Your task to perform on an android device: Show me popular videos on Youtube Image 0: 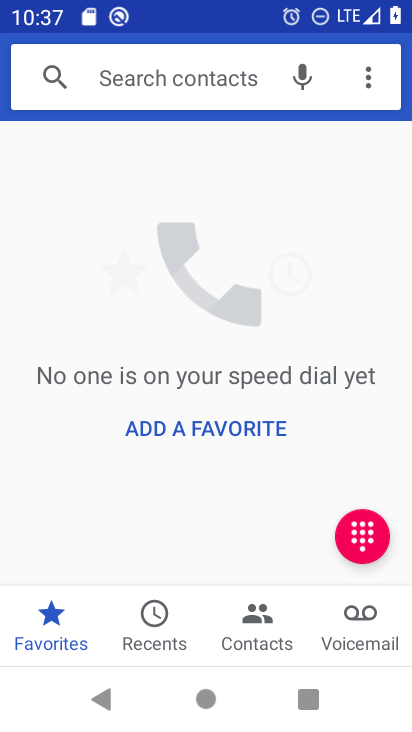
Step 0: press home button
Your task to perform on an android device: Show me popular videos on Youtube Image 1: 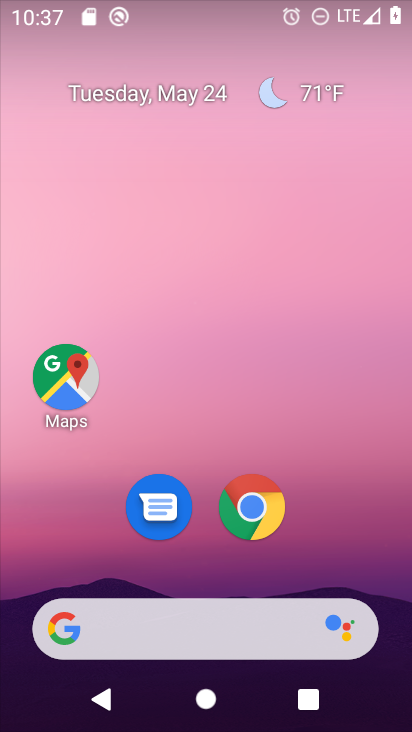
Step 1: drag from (246, 723) to (229, 12)
Your task to perform on an android device: Show me popular videos on Youtube Image 2: 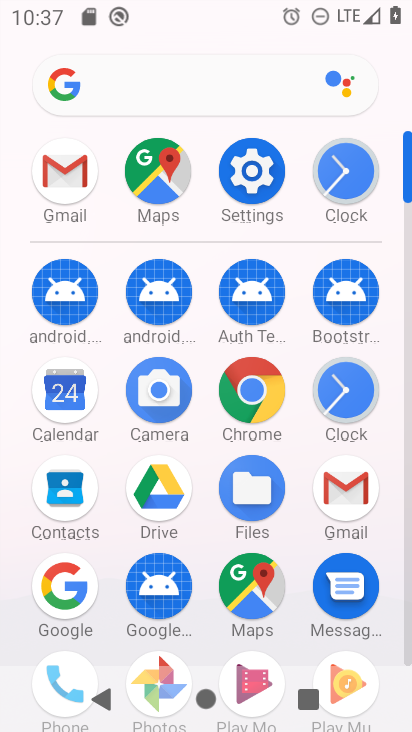
Step 2: drag from (304, 613) to (274, 198)
Your task to perform on an android device: Show me popular videos on Youtube Image 3: 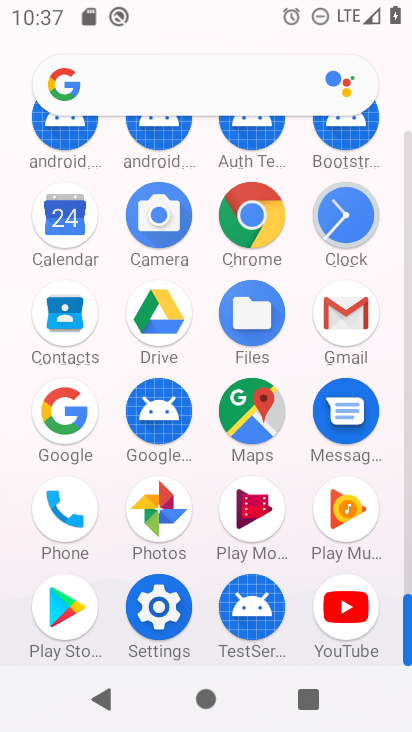
Step 3: click (344, 613)
Your task to perform on an android device: Show me popular videos on Youtube Image 4: 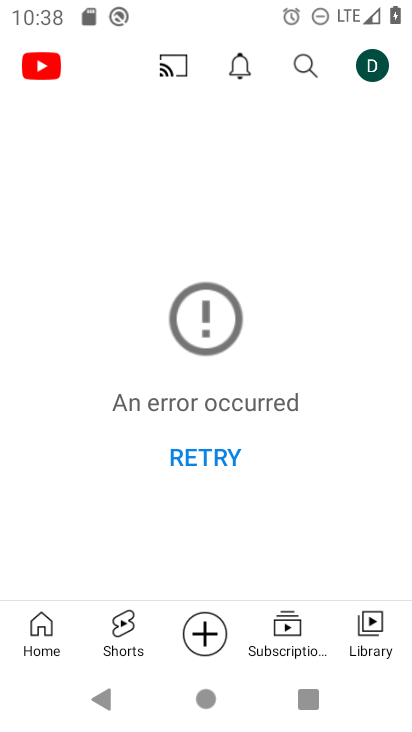
Step 4: task complete